Your task to perform on an android device: turn on improve location accuracy Image 0: 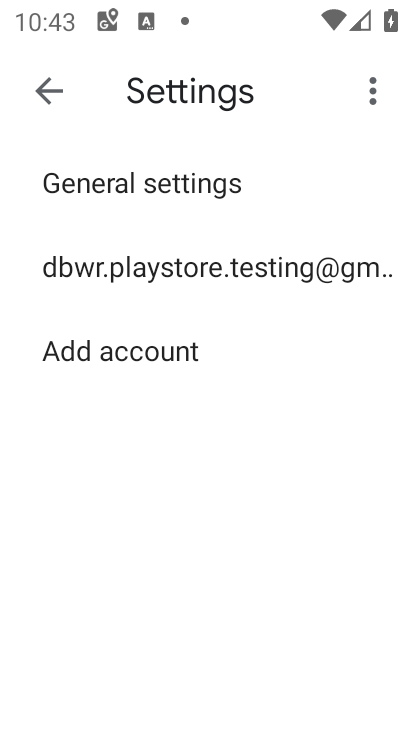
Step 0: press home button
Your task to perform on an android device: turn on improve location accuracy Image 1: 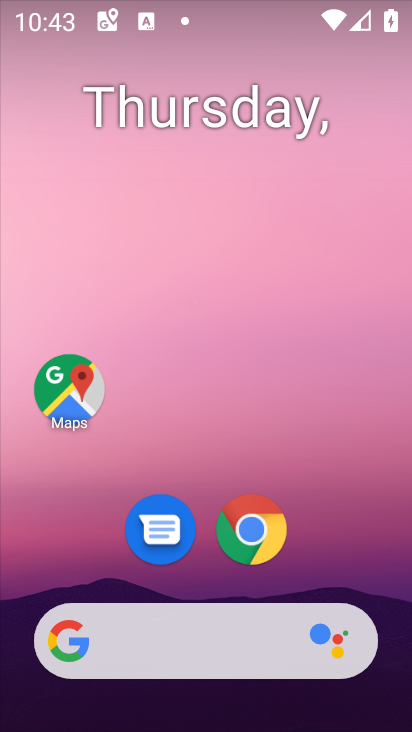
Step 1: drag from (195, 681) to (87, 3)
Your task to perform on an android device: turn on improve location accuracy Image 2: 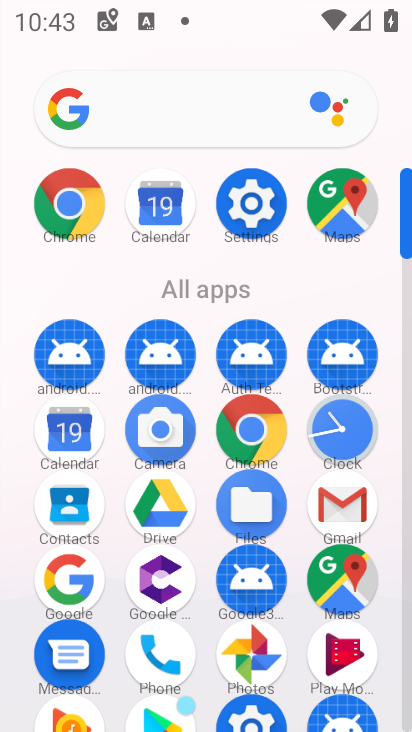
Step 2: click (264, 219)
Your task to perform on an android device: turn on improve location accuracy Image 3: 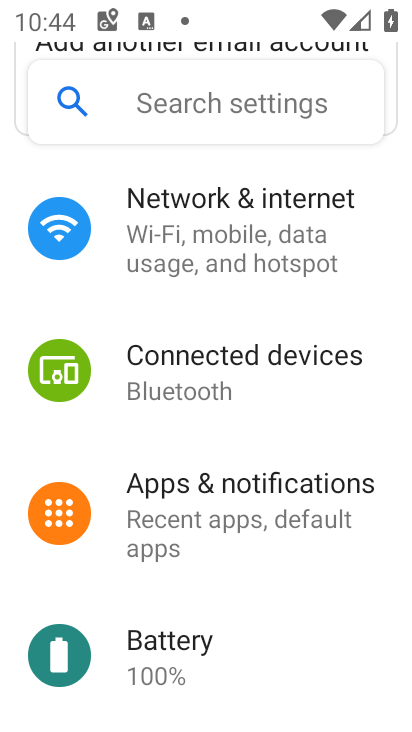
Step 3: drag from (221, 587) to (119, 138)
Your task to perform on an android device: turn on improve location accuracy Image 4: 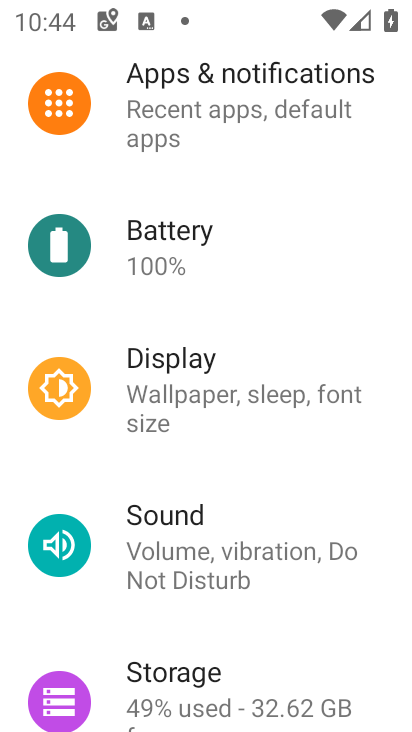
Step 4: drag from (172, 534) to (73, 178)
Your task to perform on an android device: turn on improve location accuracy Image 5: 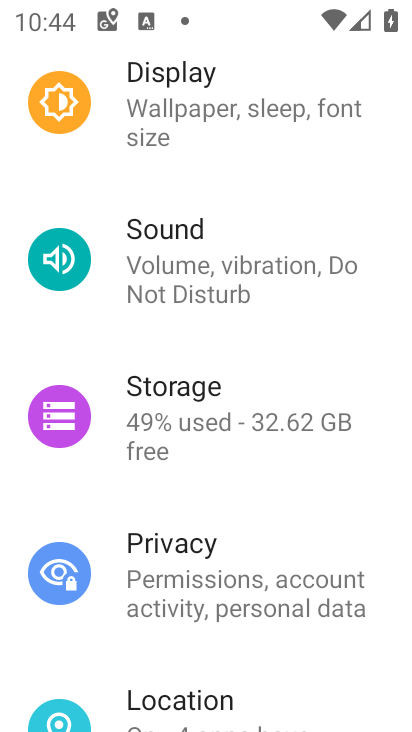
Step 5: click (228, 718)
Your task to perform on an android device: turn on improve location accuracy Image 6: 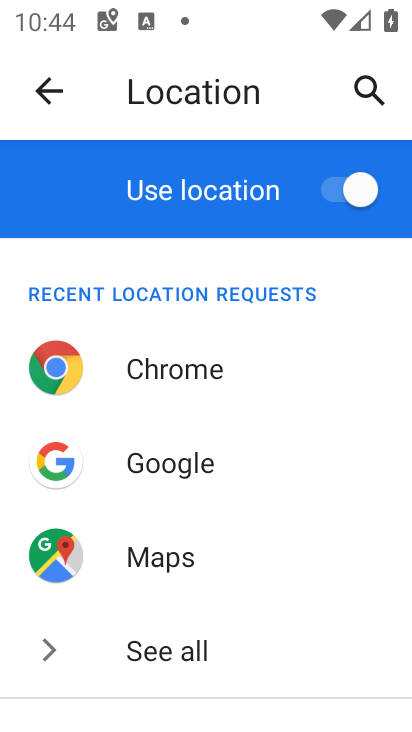
Step 6: drag from (162, 575) to (103, 101)
Your task to perform on an android device: turn on improve location accuracy Image 7: 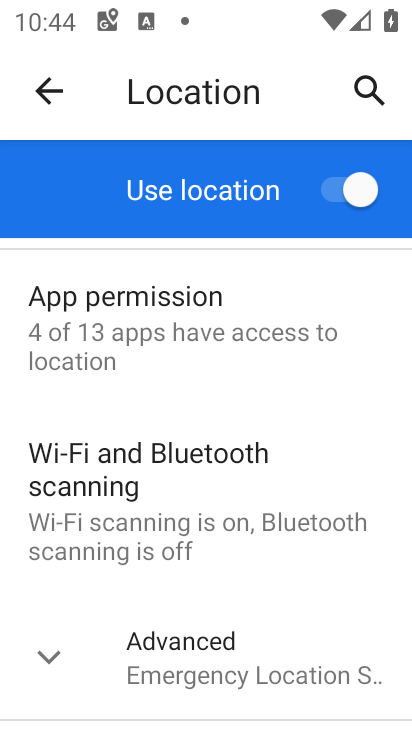
Step 7: click (257, 672)
Your task to perform on an android device: turn on improve location accuracy Image 8: 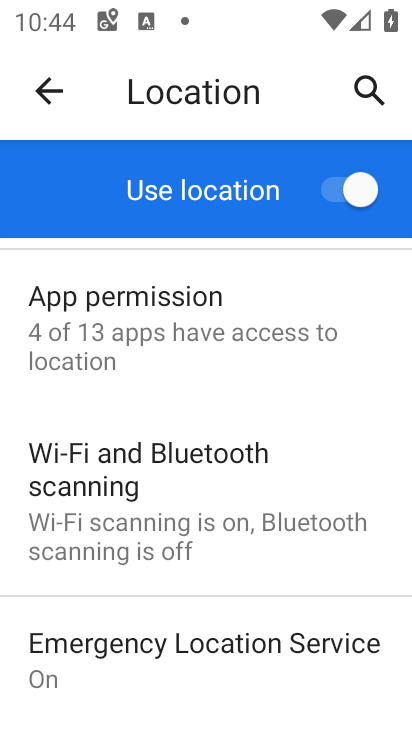
Step 8: drag from (251, 655) to (174, 215)
Your task to perform on an android device: turn on improve location accuracy Image 9: 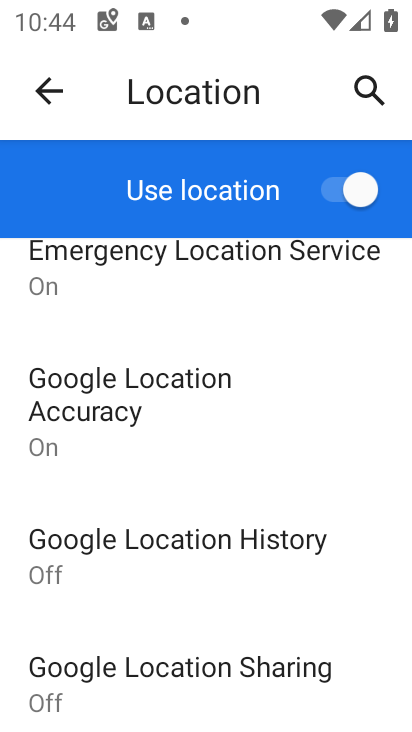
Step 9: drag from (220, 602) to (171, 204)
Your task to perform on an android device: turn on improve location accuracy Image 10: 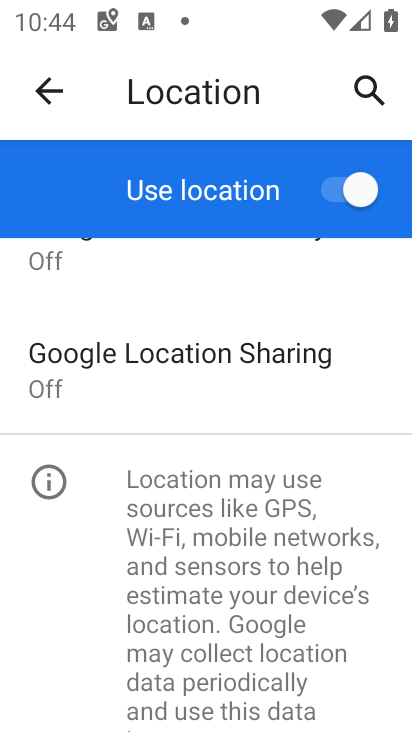
Step 10: drag from (154, 375) to (202, 643)
Your task to perform on an android device: turn on improve location accuracy Image 11: 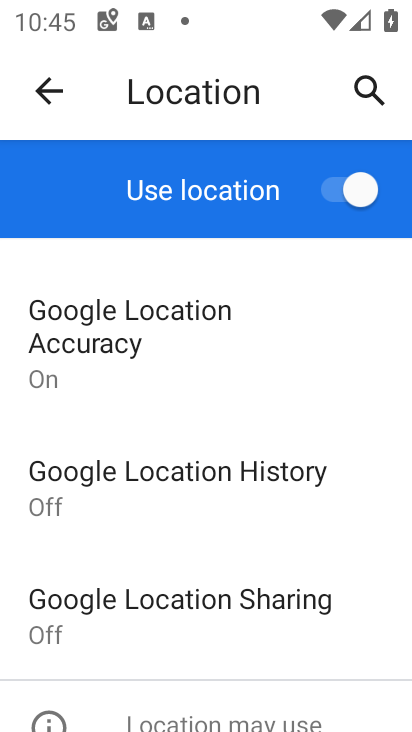
Step 11: click (94, 330)
Your task to perform on an android device: turn on improve location accuracy Image 12: 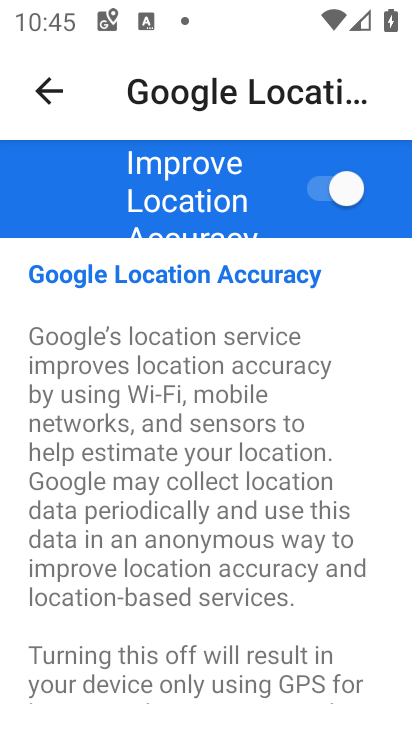
Step 12: task complete